Your task to perform on an android device: turn on location history Image 0: 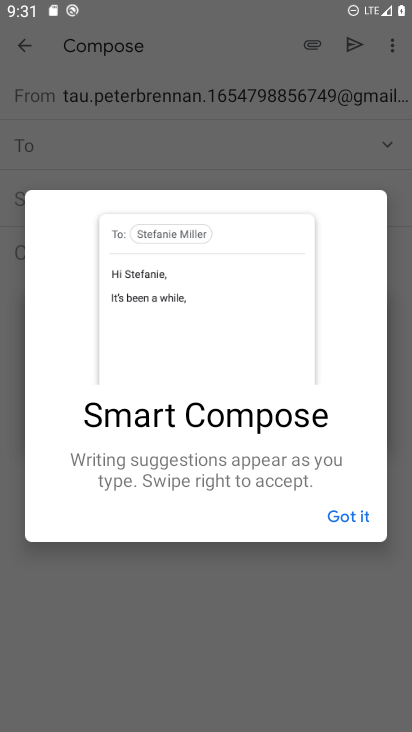
Step 0: press home button
Your task to perform on an android device: turn on location history Image 1: 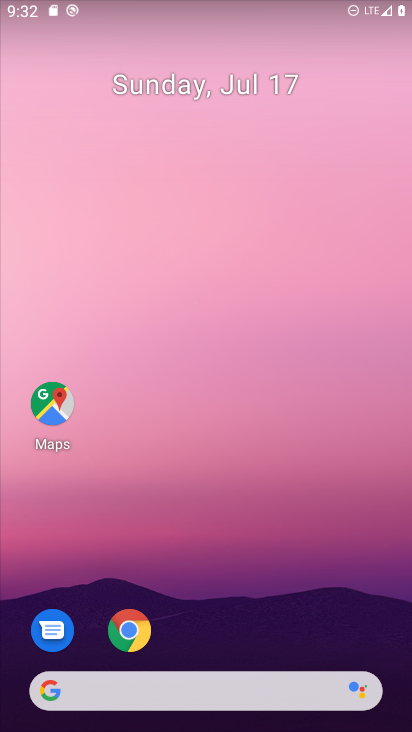
Step 1: drag from (240, 662) to (285, 186)
Your task to perform on an android device: turn on location history Image 2: 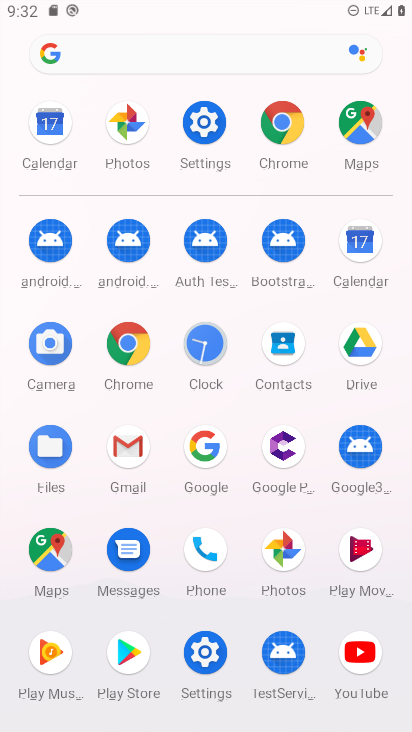
Step 2: click (202, 122)
Your task to perform on an android device: turn on location history Image 3: 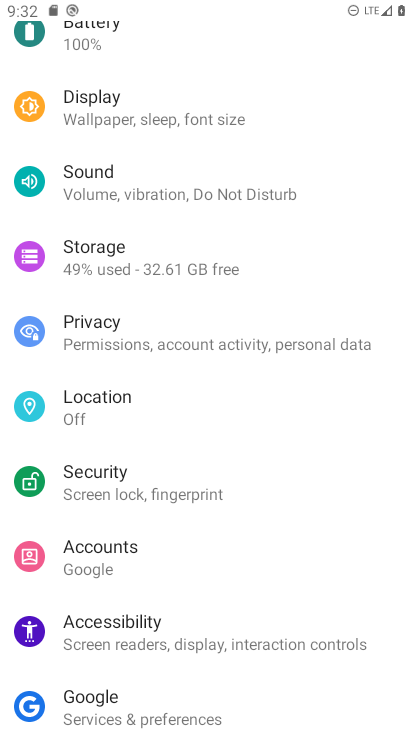
Step 3: click (139, 405)
Your task to perform on an android device: turn on location history Image 4: 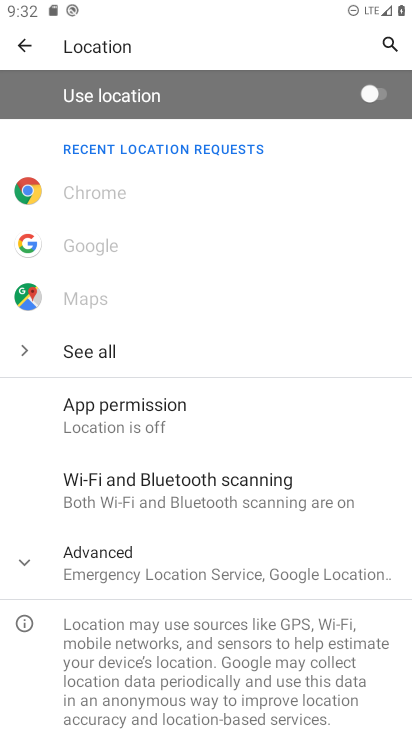
Step 4: click (194, 567)
Your task to perform on an android device: turn on location history Image 5: 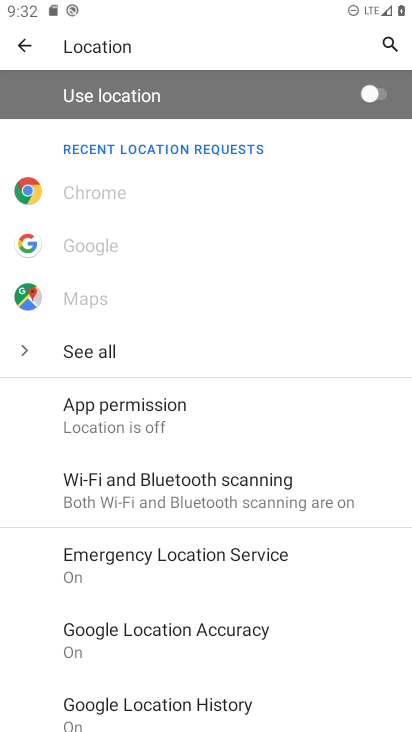
Step 5: drag from (247, 665) to (253, 352)
Your task to perform on an android device: turn on location history Image 6: 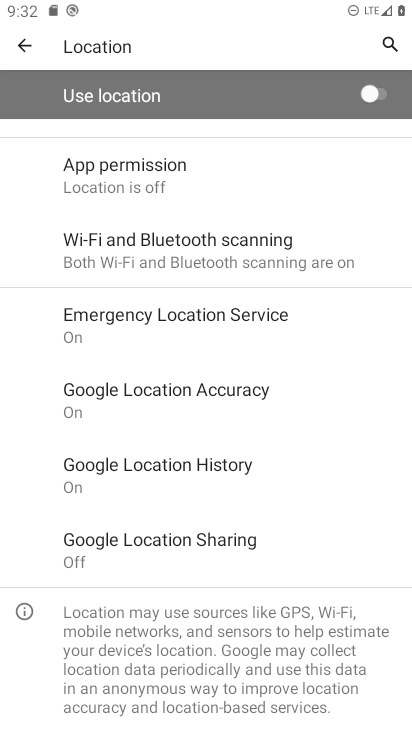
Step 6: click (189, 490)
Your task to perform on an android device: turn on location history Image 7: 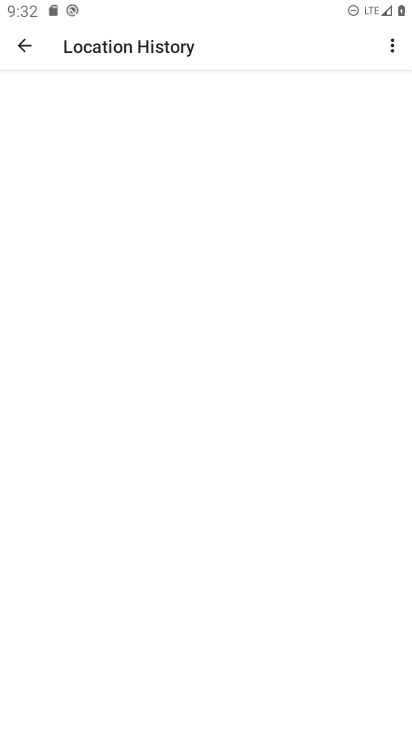
Step 7: task complete